Your task to perform on an android device: turn off location Image 0: 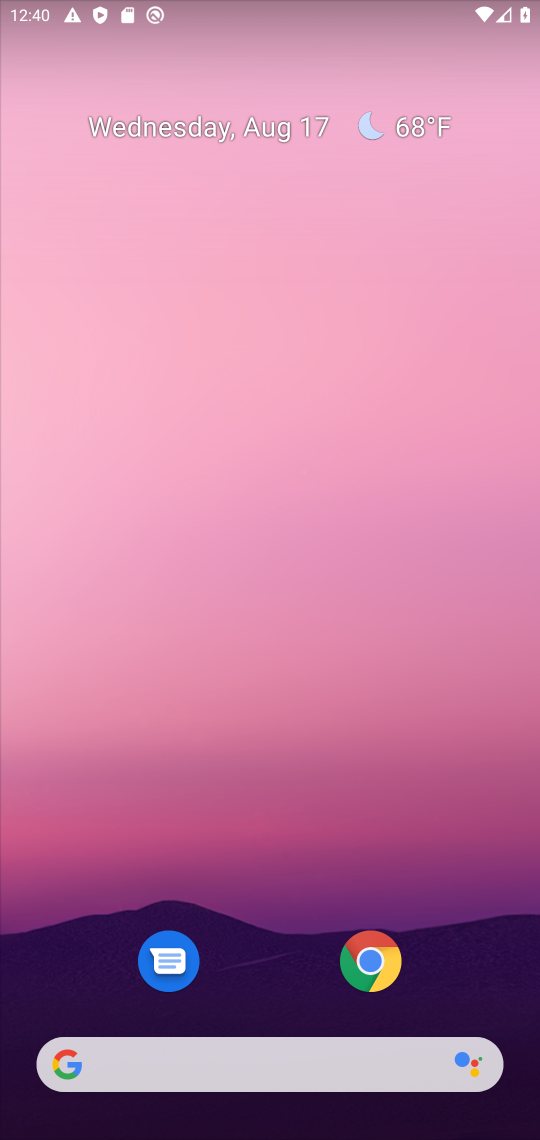
Step 0: drag from (220, 973) to (232, 239)
Your task to perform on an android device: turn off location Image 1: 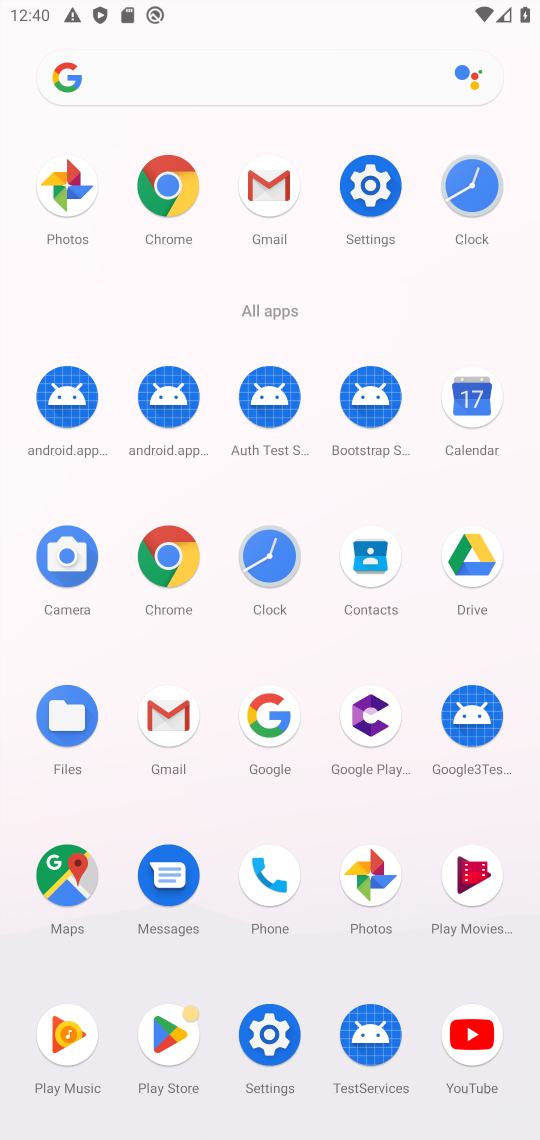
Step 1: click (379, 206)
Your task to perform on an android device: turn off location Image 2: 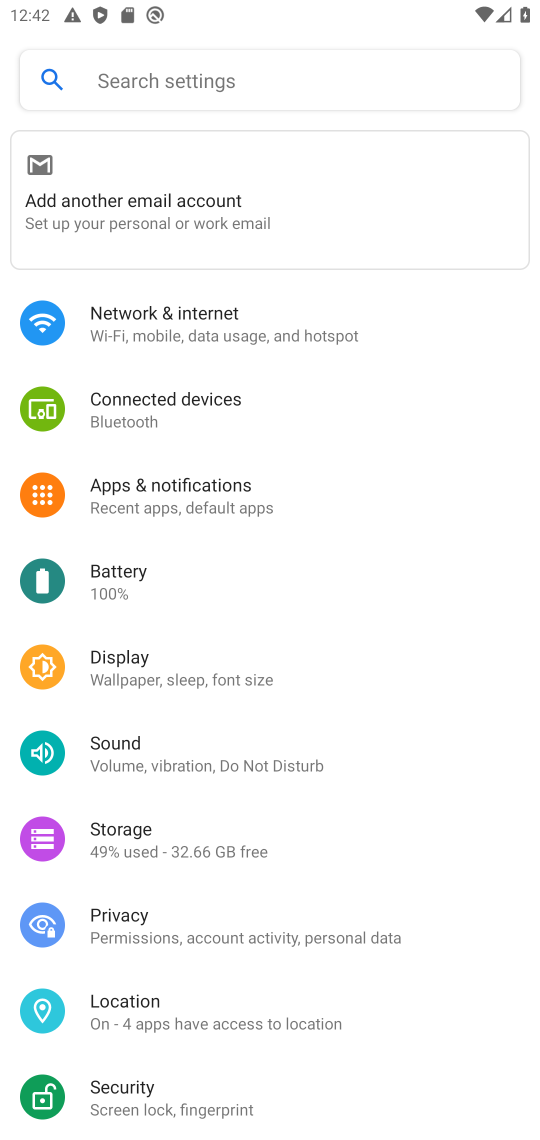
Step 2: click (168, 1010)
Your task to perform on an android device: turn off location Image 3: 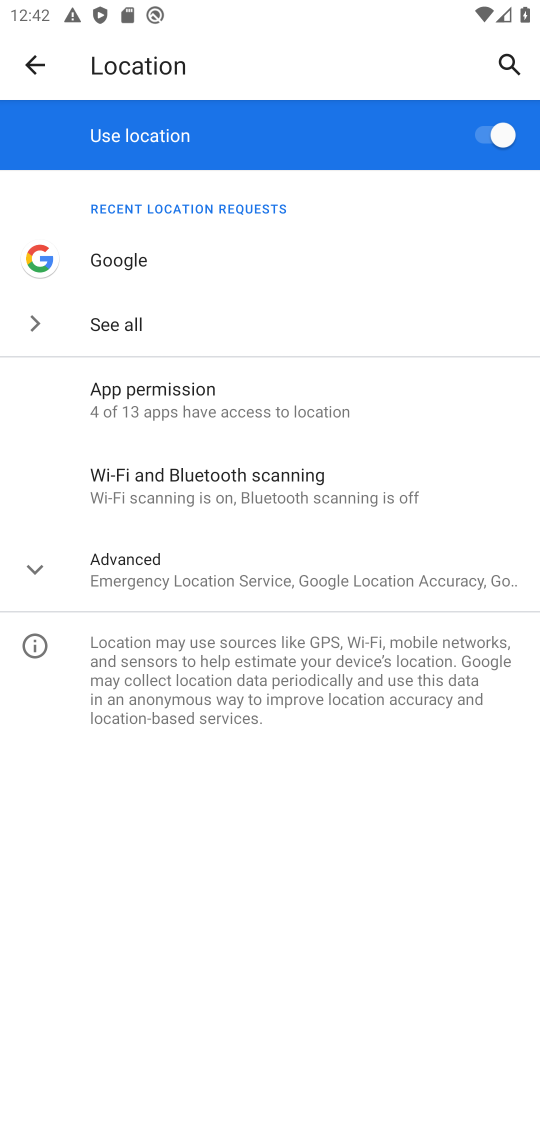
Step 3: click (477, 134)
Your task to perform on an android device: turn off location Image 4: 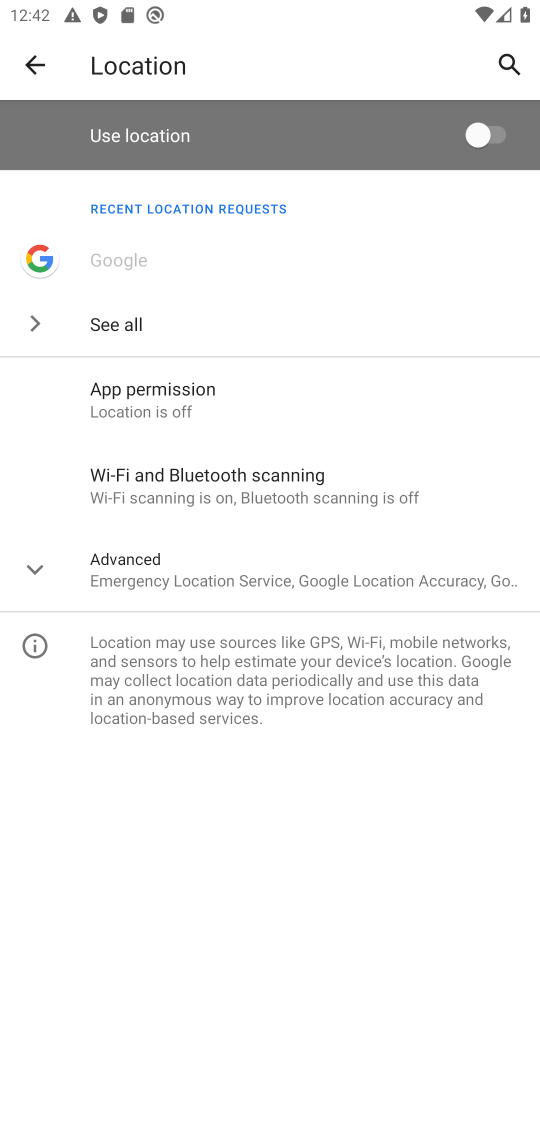
Step 4: task complete